Your task to perform on an android device: turn smart compose on in the gmail app Image 0: 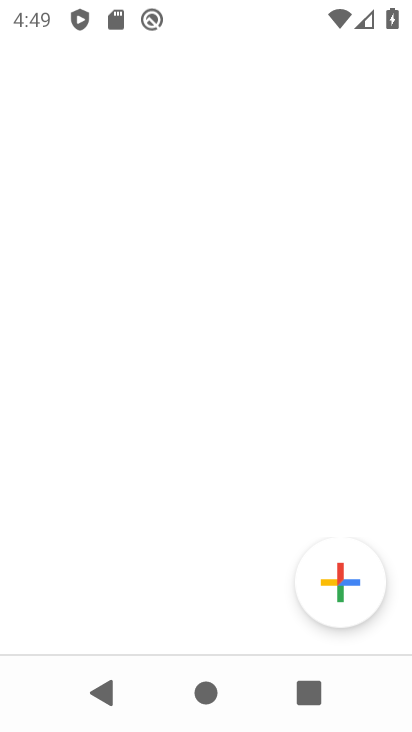
Step 0: drag from (209, 551) to (218, 74)
Your task to perform on an android device: turn smart compose on in the gmail app Image 1: 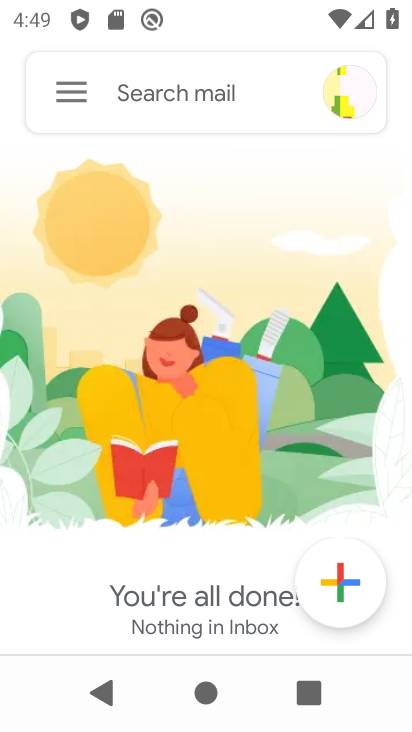
Step 1: click (68, 113)
Your task to perform on an android device: turn smart compose on in the gmail app Image 2: 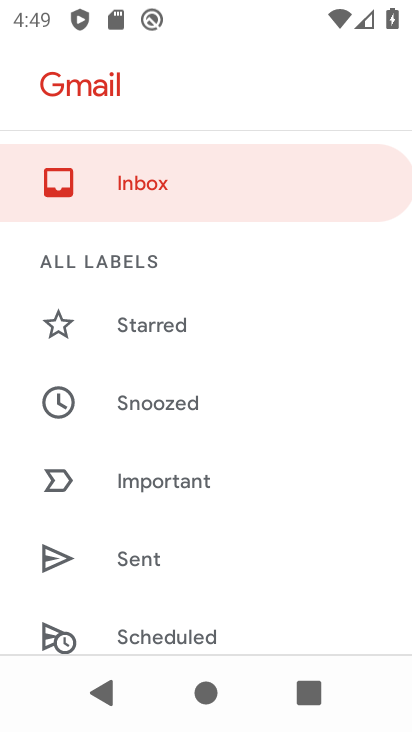
Step 2: drag from (124, 610) to (205, 79)
Your task to perform on an android device: turn smart compose on in the gmail app Image 3: 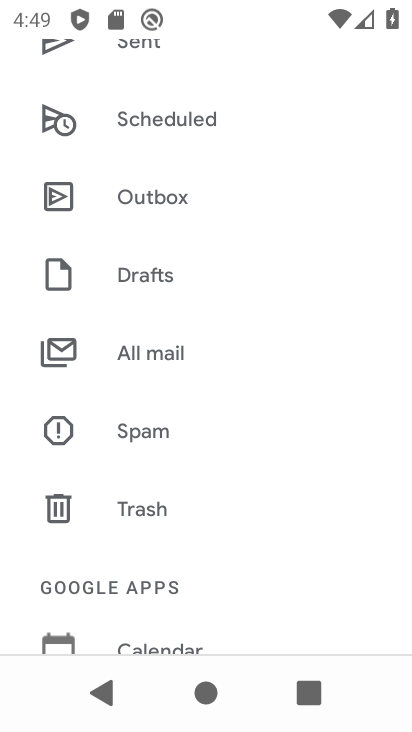
Step 3: drag from (135, 608) to (225, 23)
Your task to perform on an android device: turn smart compose on in the gmail app Image 4: 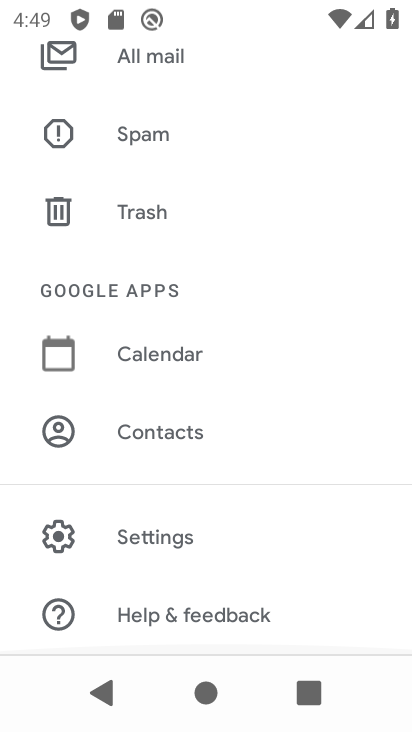
Step 4: click (165, 525)
Your task to perform on an android device: turn smart compose on in the gmail app Image 5: 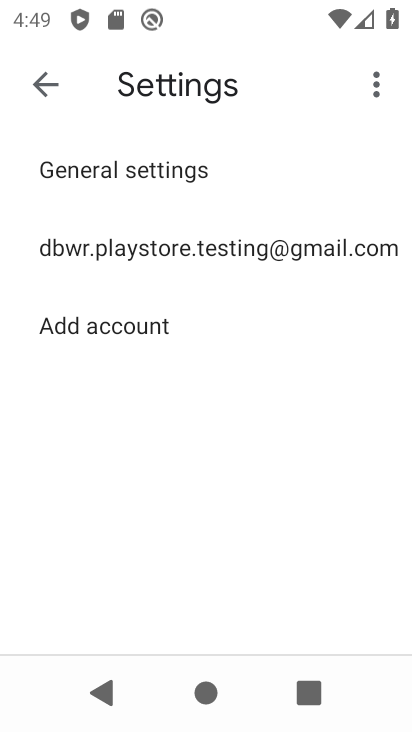
Step 5: click (158, 231)
Your task to perform on an android device: turn smart compose on in the gmail app Image 6: 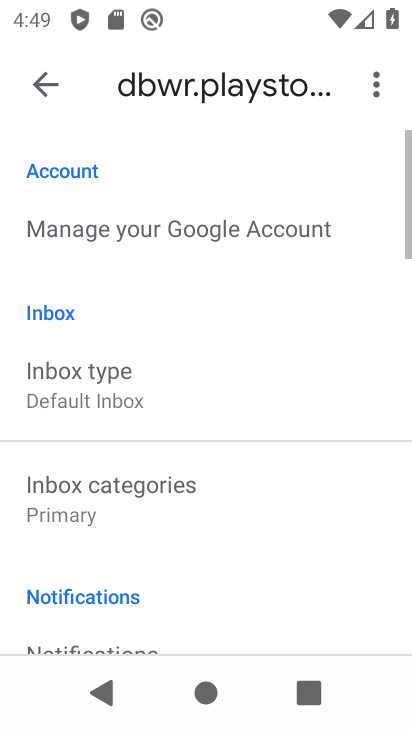
Step 6: task complete